Your task to perform on an android device: toggle priority inbox in the gmail app Image 0: 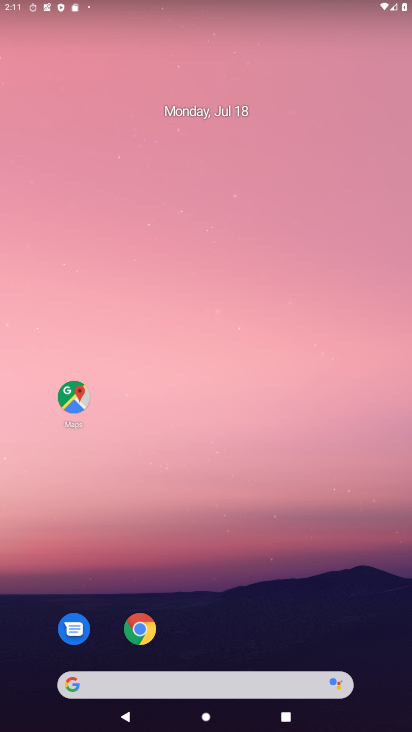
Step 0: drag from (235, 649) to (245, 45)
Your task to perform on an android device: toggle priority inbox in the gmail app Image 1: 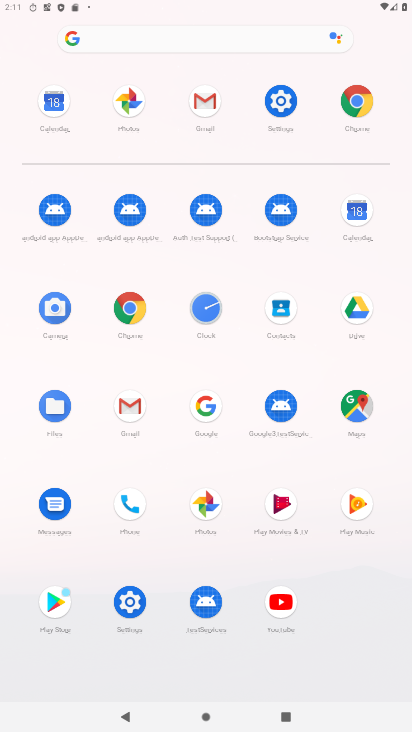
Step 1: click (201, 93)
Your task to perform on an android device: toggle priority inbox in the gmail app Image 2: 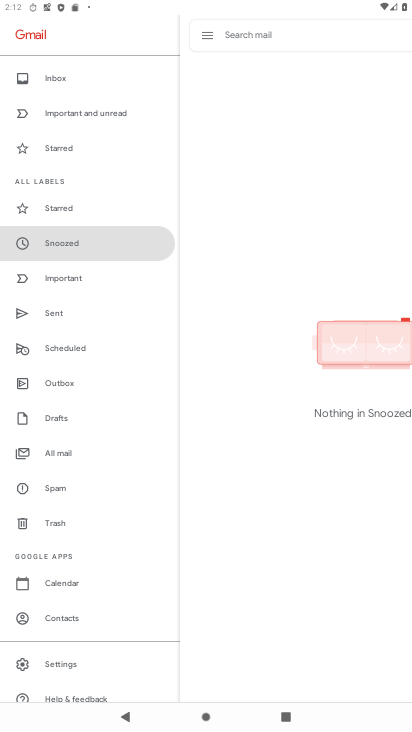
Step 2: click (79, 657)
Your task to perform on an android device: toggle priority inbox in the gmail app Image 3: 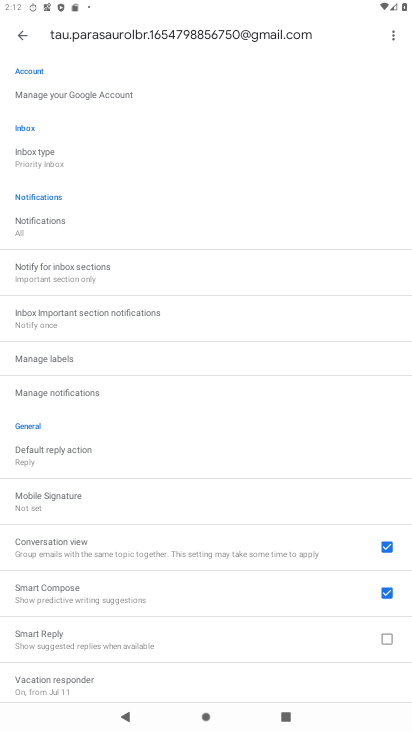
Step 3: click (70, 157)
Your task to perform on an android device: toggle priority inbox in the gmail app Image 4: 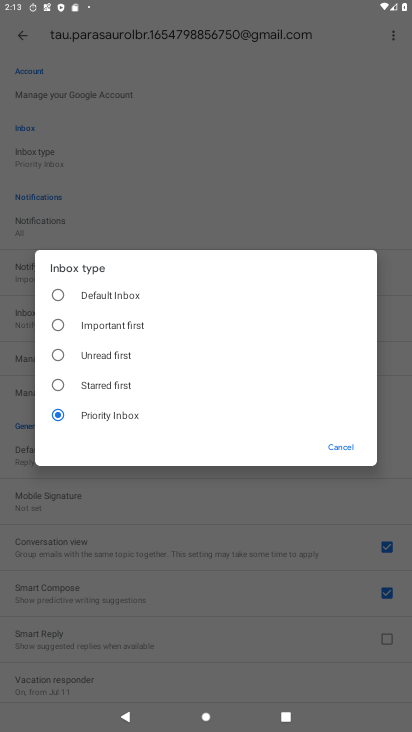
Step 4: click (68, 412)
Your task to perform on an android device: toggle priority inbox in the gmail app Image 5: 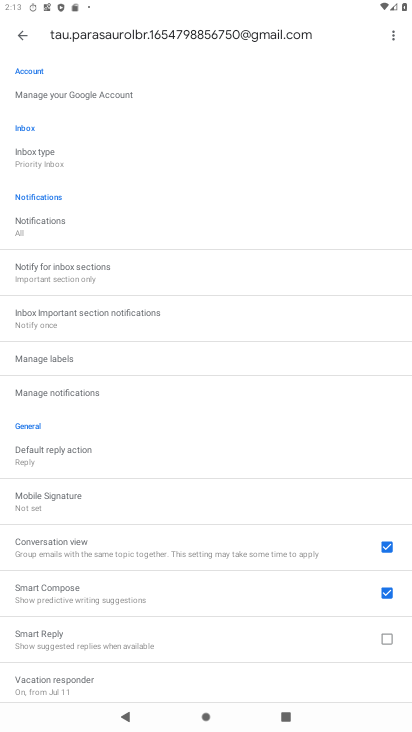
Step 5: task complete